Your task to perform on an android device: Open Chrome and go to the settings page Image 0: 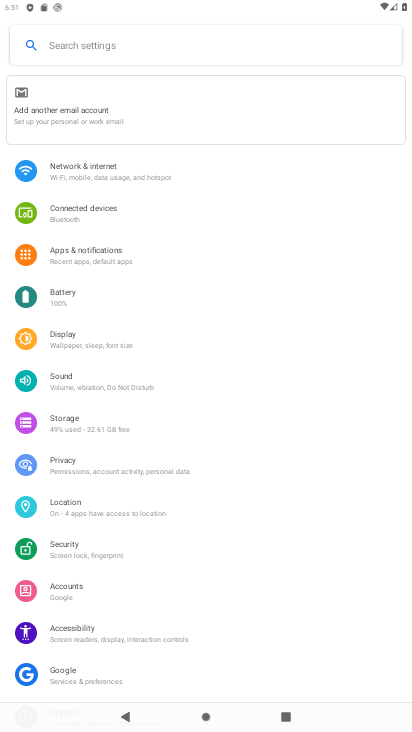
Step 0: press home button
Your task to perform on an android device: Open Chrome and go to the settings page Image 1: 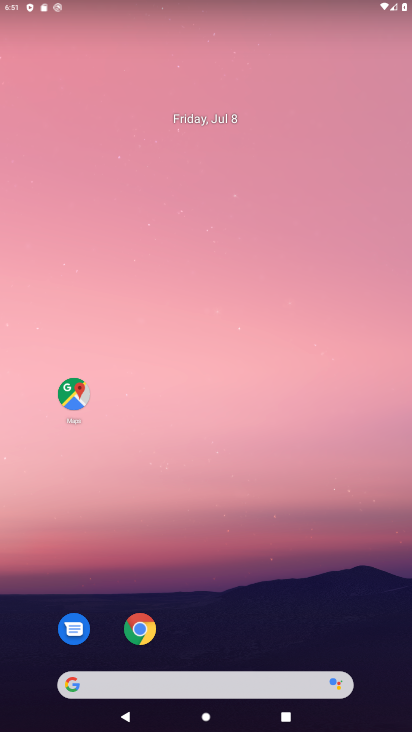
Step 1: click (134, 627)
Your task to perform on an android device: Open Chrome and go to the settings page Image 2: 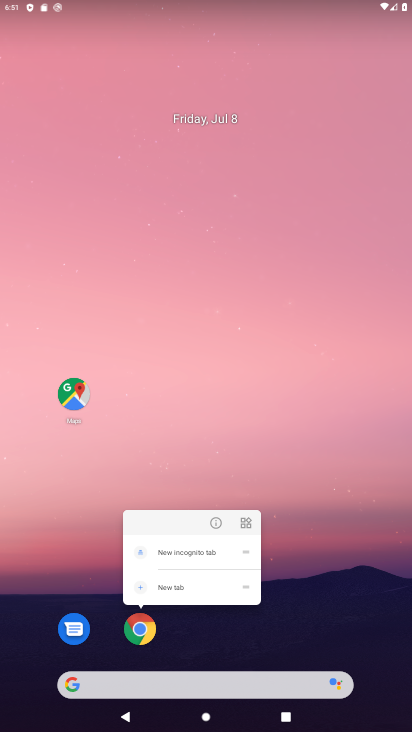
Step 2: click (133, 637)
Your task to perform on an android device: Open Chrome and go to the settings page Image 3: 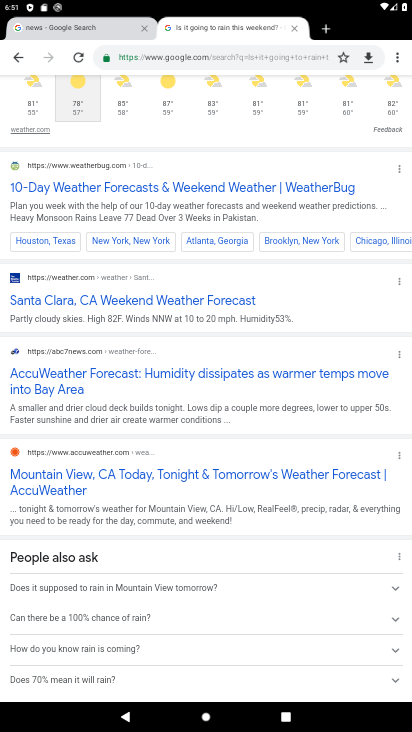
Step 3: task complete